Your task to perform on an android device: Open Chrome and go to settings Image 0: 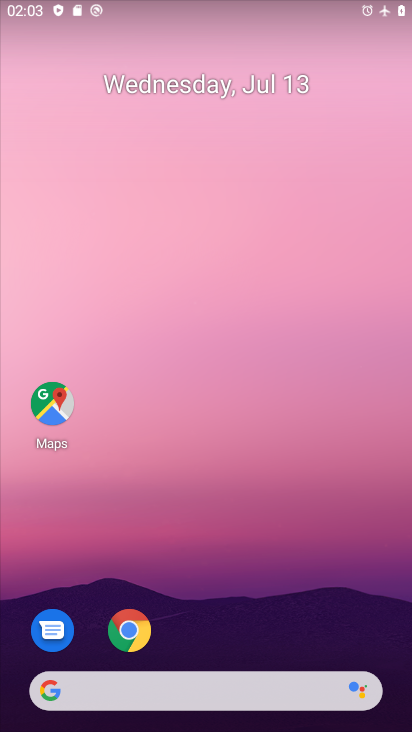
Step 0: click (143, 636)
Your task to perform on an android device: Open Chrome and go to settings Image 1: 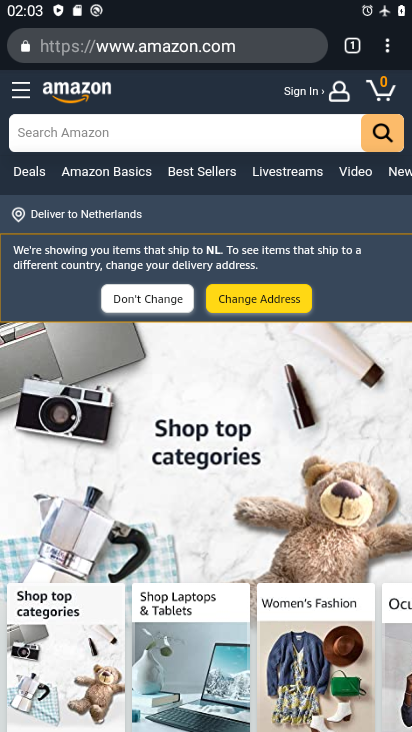
Step 1: click (383, 38)
Your task to perform on an android device: Open Chrome and go to settings Image 2: 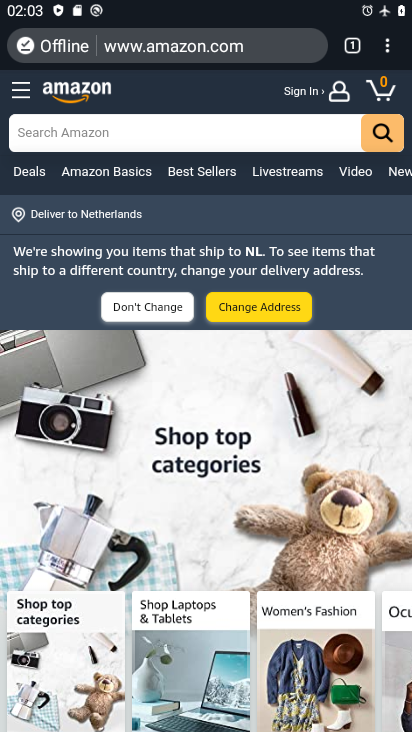
Step 2: click (388, 43)
Your task to perform on an android device: Open Chrome and go to settings Image 3: 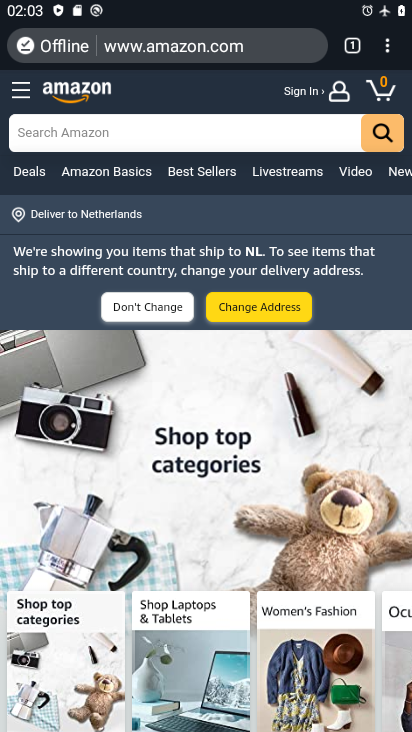
Step 3: task complete